Your task to perform on an android device: Open the Play Movies app and select the watchlist tab. Image 0: 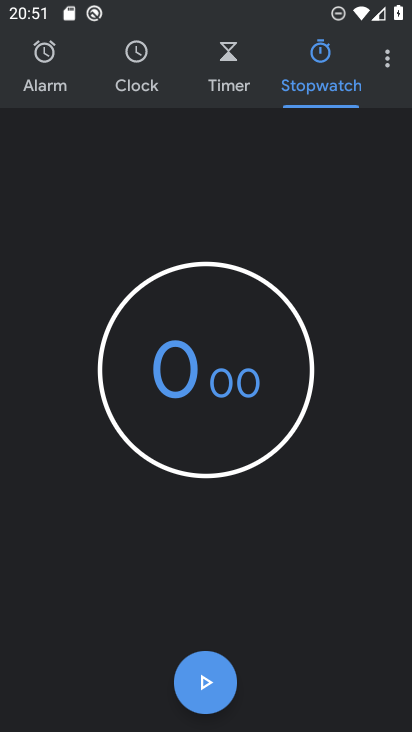
Step 0: press home button
Your task to perform on an android device: Open the Play Movies app and select the watchlist tab. Image 1: 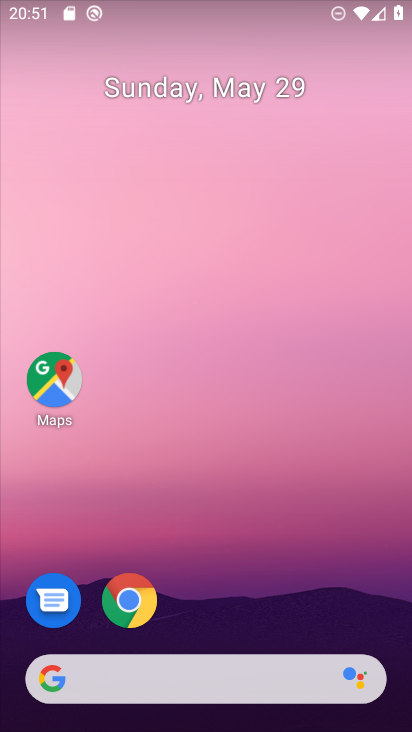
Step 1: drag from (335, 576) to (326, 123)
Your task to perform on an android device: Open the Play Movies app and select the watchlist tab. Image 2: 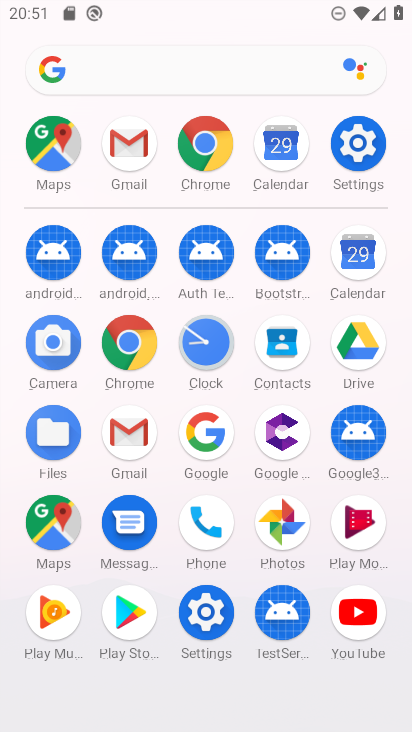
Step 2: click (367, 528)
Your task to perform on an android device: Open the Play Movies app and select the watchlist tab. Image 3: 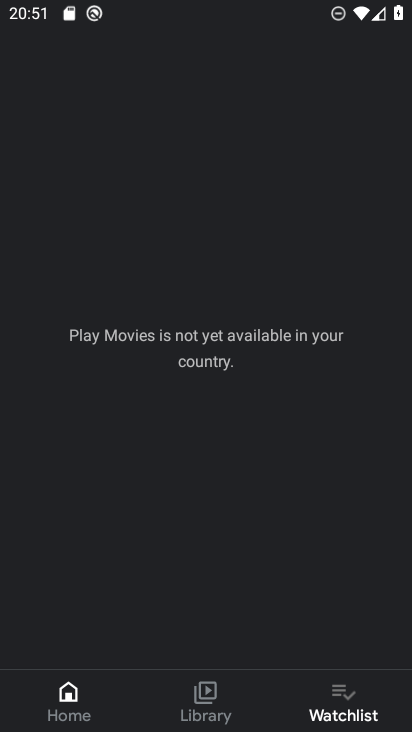
Step 3: task complete